Your task to perform on an android device: turn on the 24-hour format for clock Image 0: 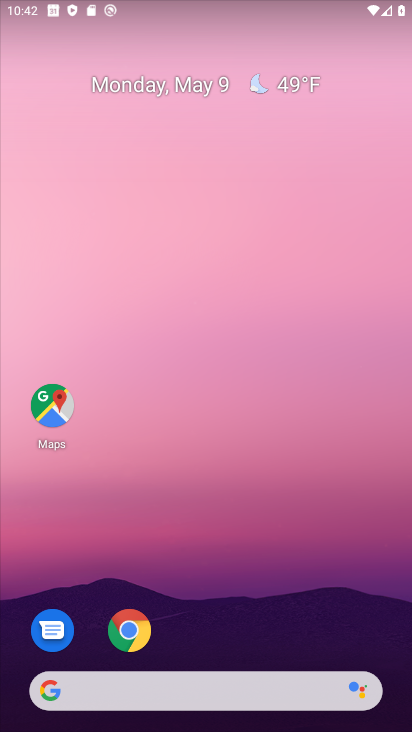
Step 0: drag from (199, 633) to (212, 194)
Your task to perform on an android device: turn on the 24-hour format for clock Image 1: 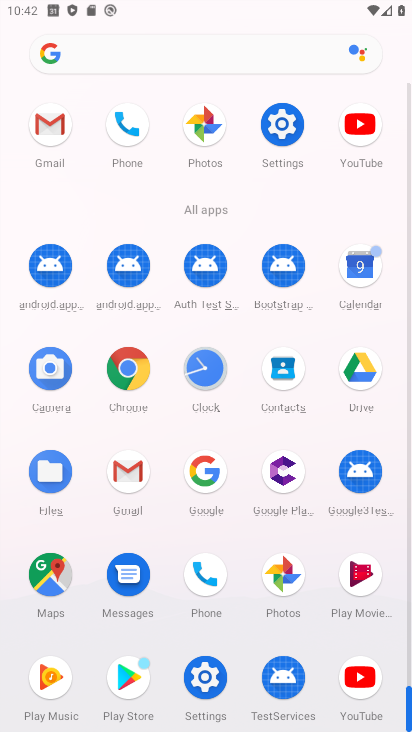
Step 1: click (192, 356)
Your task to perform on an android device: turn on the 24-hour format for clock Image 2: 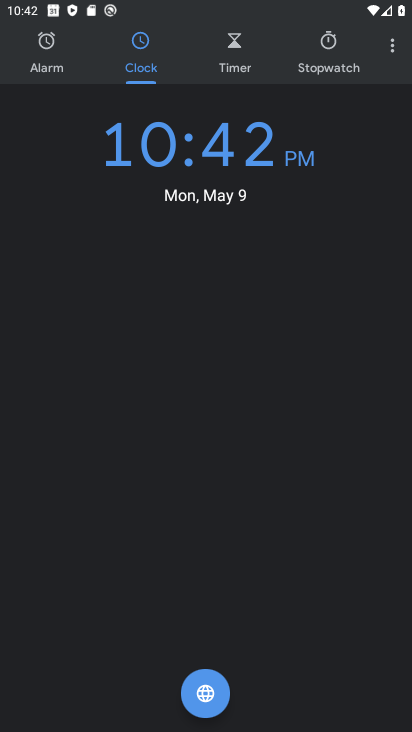
Step 2: click (393, 55)
Your task to perform on an android device: turn on the 24-hour format for clock Image 3: 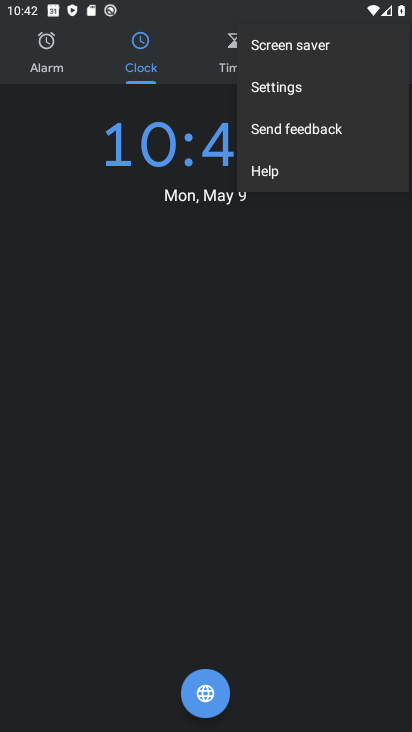
Step 3: click (272, 75)
Your task to perform on an android device: turn on the 24-hour format for clock Image 4: 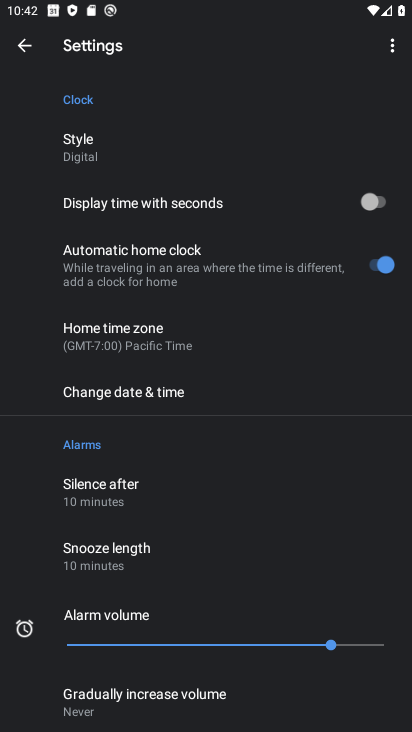
Step 4: click (158, 379)
Your task to perform on an android device: turn on the 24-hour format for clock Image 5: 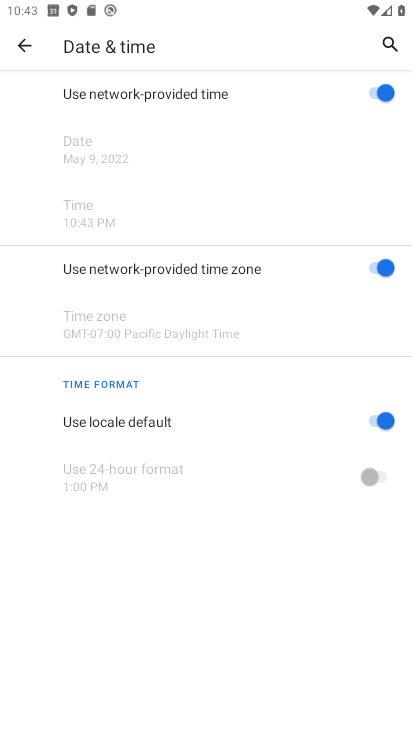
Step 5: click (175, 459)
Your task to perform on an android device: turn on the 24-hour format for clock Image 6: 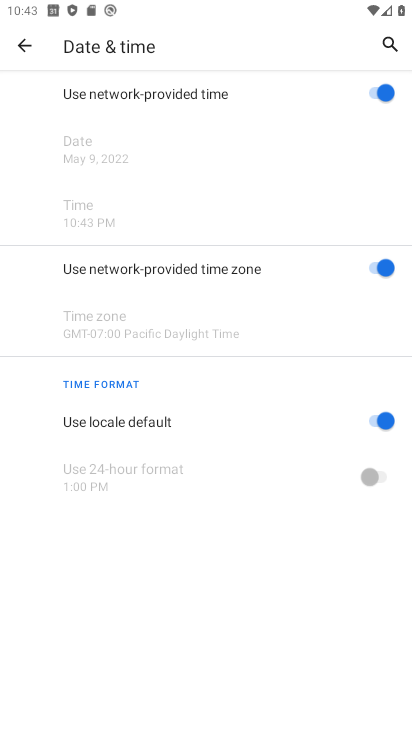
Step 6: click (372, 423)
Your task to perform on an android device: turn on the 24-hour format for clock Image 7: 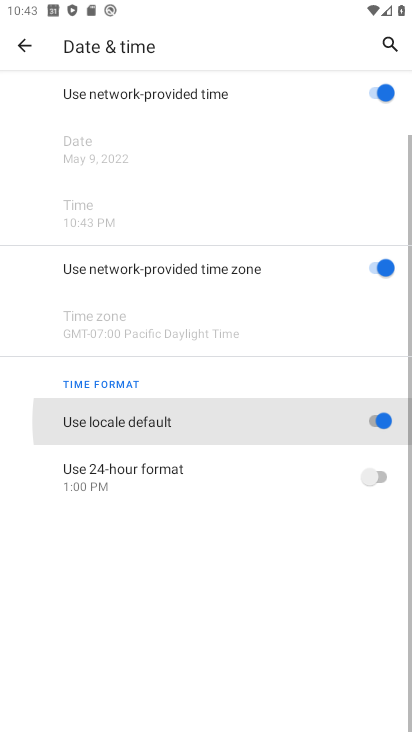
Step 7: click (381, 481)
Your task to perform on an android device: turn on the 24-hour format for clock Image 8: 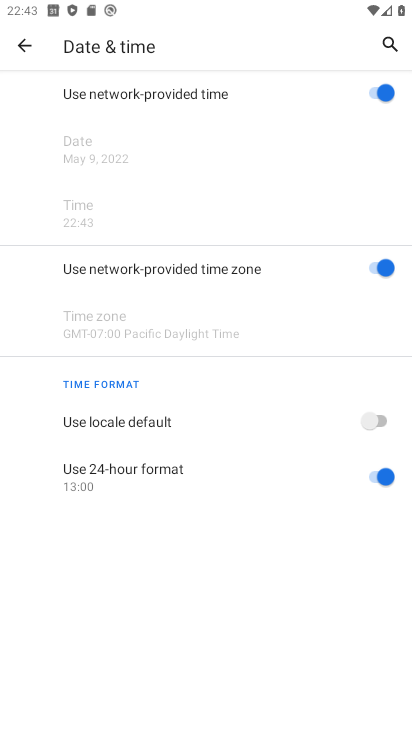
Step 8: task complete